Your task to perform on an android device: Open calendar and show me the fourth week of next month Image 0: 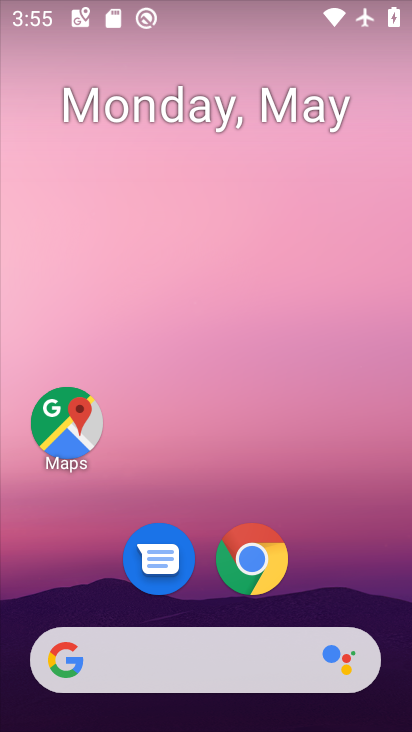
Step 0: drag from (300, 601) to (119, 7)
Your task to perform on an android device: Open calendar and show me the fourth week of next month Image 1: 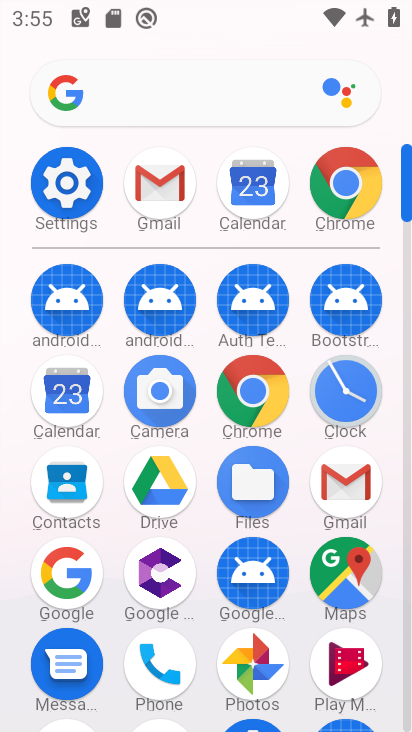
Step 1: click (64, 430)
Your task to perform on an android device: Open calendar and show me the fourth week of next month Image 2: 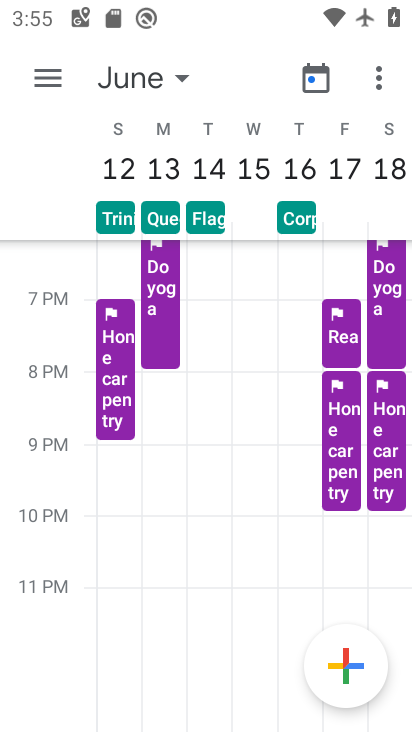
Step 2: click (141, 75)
Your task to perform on an android device: Open calendar and show me the fourth week of next month Image 3: 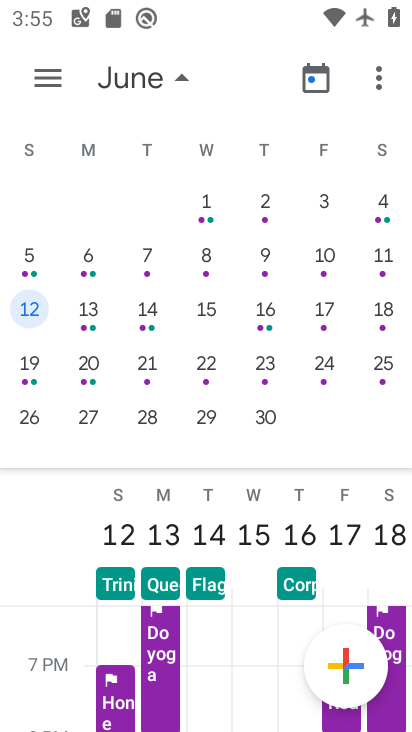
Step 3: click (24, 380)
Your task to perform on an android device: Open calendar and show me the fourth week of next month Image 4: 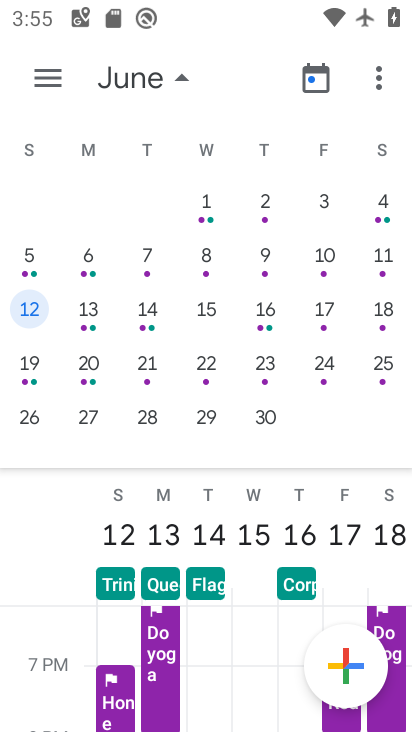
Step 4: click (29, 373)
Your task to perform on an android device: Open calendar and show me the fourth week of next month Image 5: 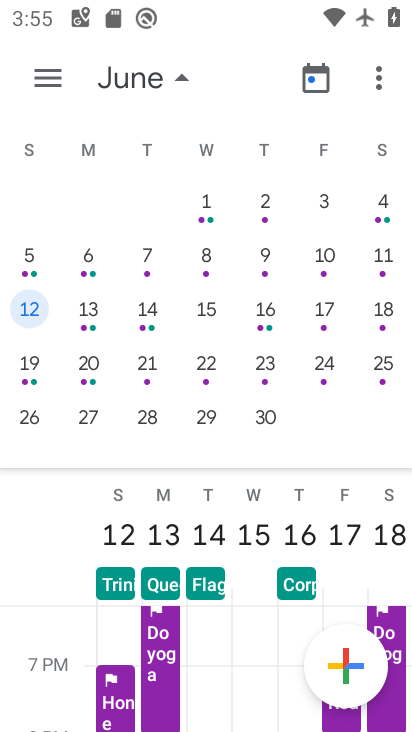
Step 5: click (31, 366)
Your task to perform on an android device: Open calendar and show me the fourth week of next month Image 6: 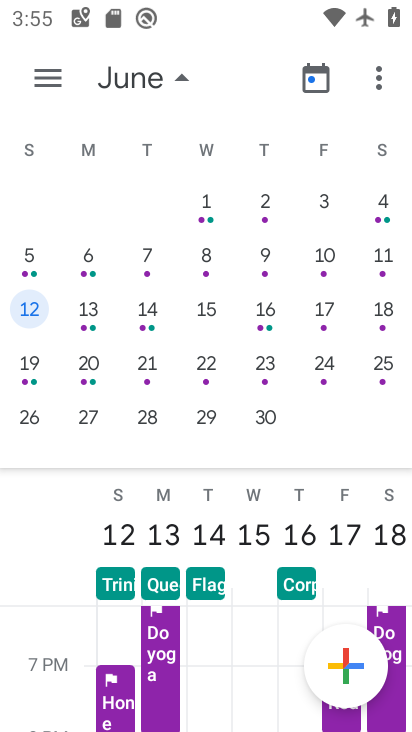
Step 6: click (31, 366)
Your task to perform on an android device: Open calendar and show me the fourth week of next month Image 7: 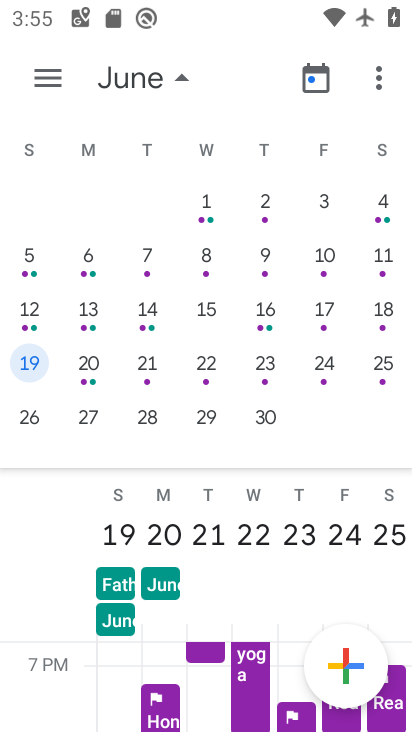
Step 7: task complete